Your task to perform on an android device: Go to ESPN.com Image 0: 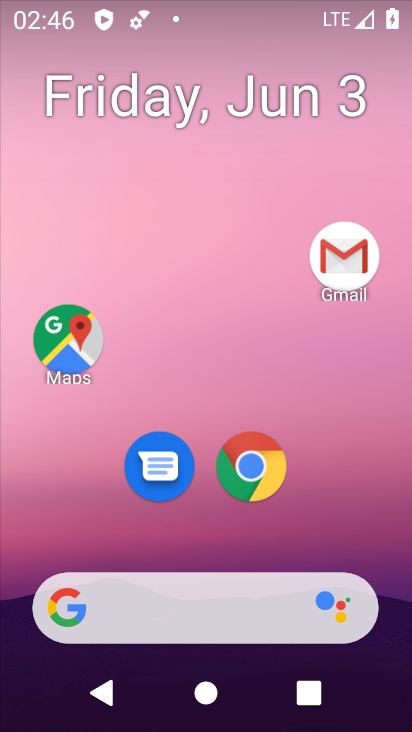
Step 0: click (246, 465)
Your task to perform on an android device: Go to ESPN.com Image 1: 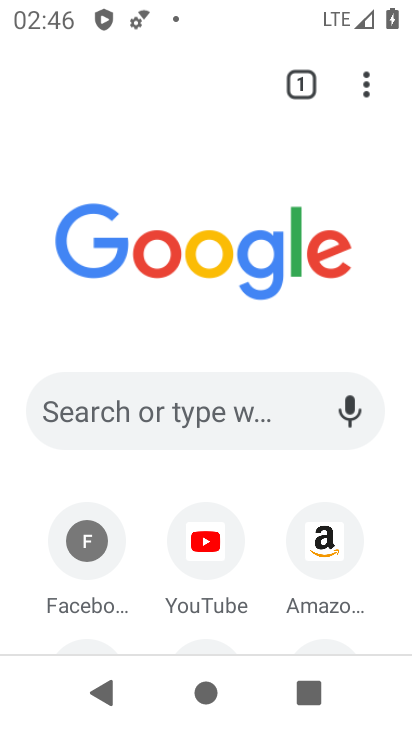
Step 1: drag from (240, 571) to (232, 414)
Your task to perform on an android device: Go to ESPN.com Image 2: 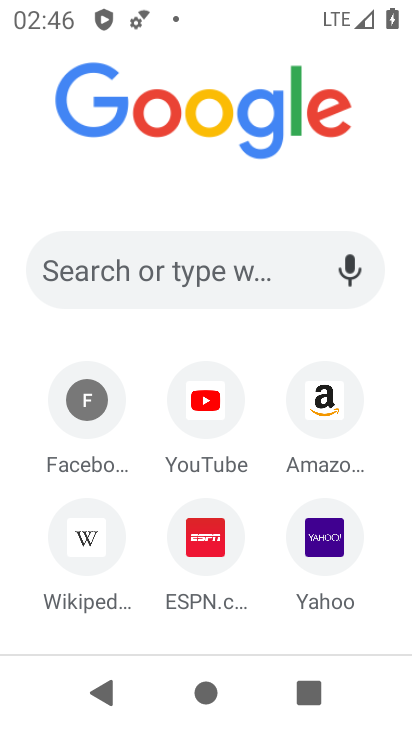
Step 2: click (203, 544)
Your task to perform on an android device: Go to ESPN.com Image 3: 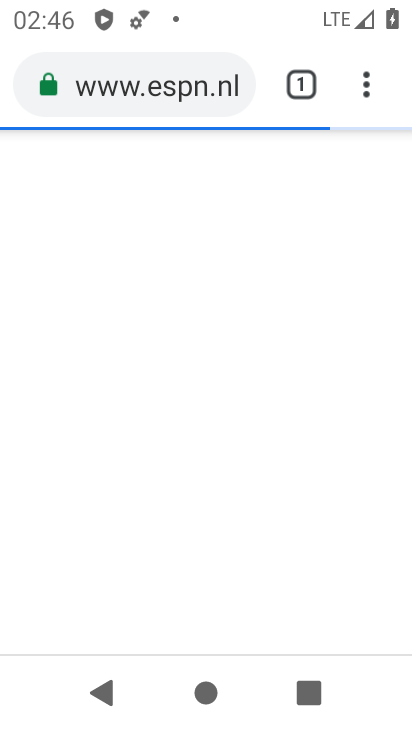
Step 3: task complete